Your task to perform on an android device: Go to Yahoo.com Image 0: 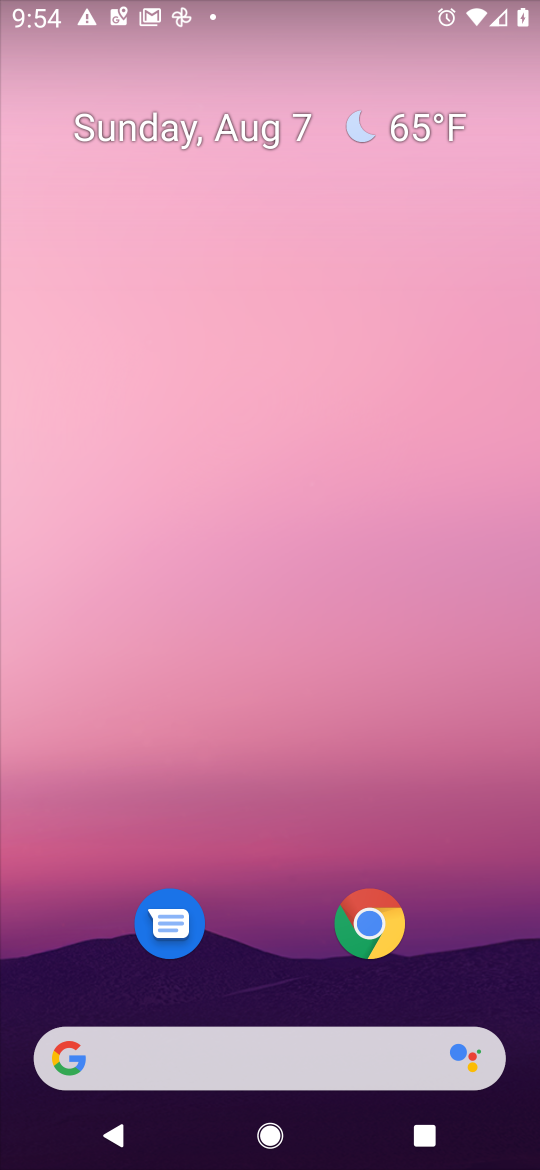
Step 0: drag from (521, 968) to (19, 15)
Your task to perform on an android device: Go to Yahoo.com Image 1: 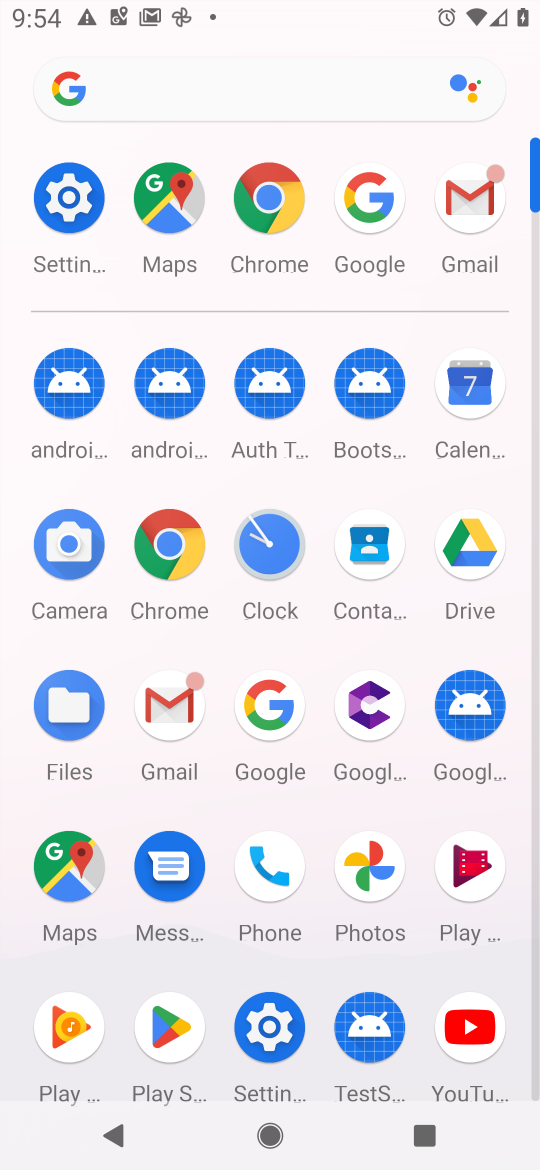
Step 1: click (276, 706)
Your task to perform on an android device: Go to Yahoo.com Image 2: 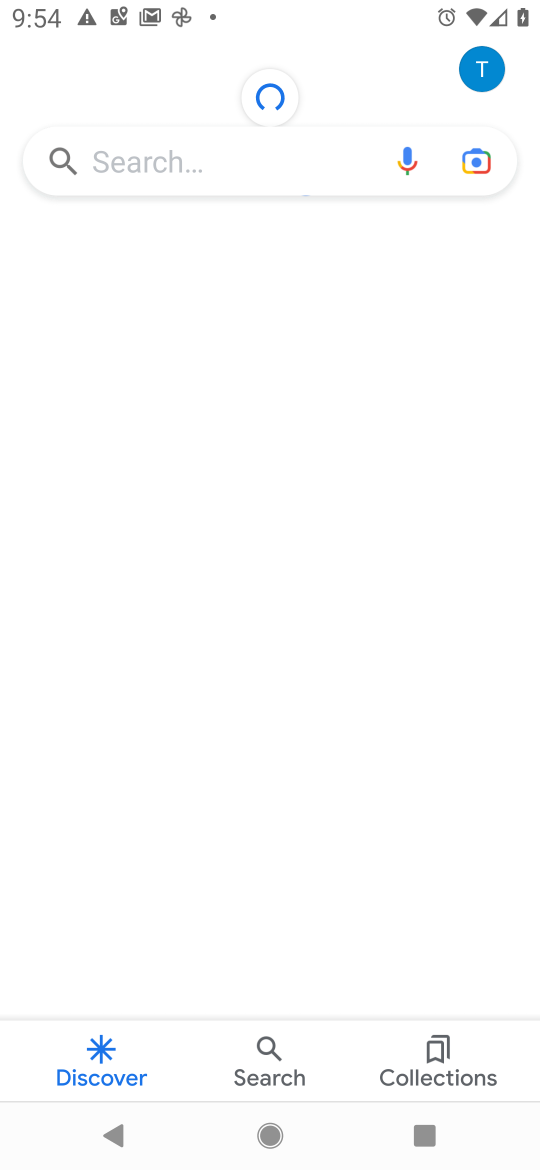
Step 2: click (120, 169)
Your task to perform on an android device: Go to Yahoo.com Image 3: 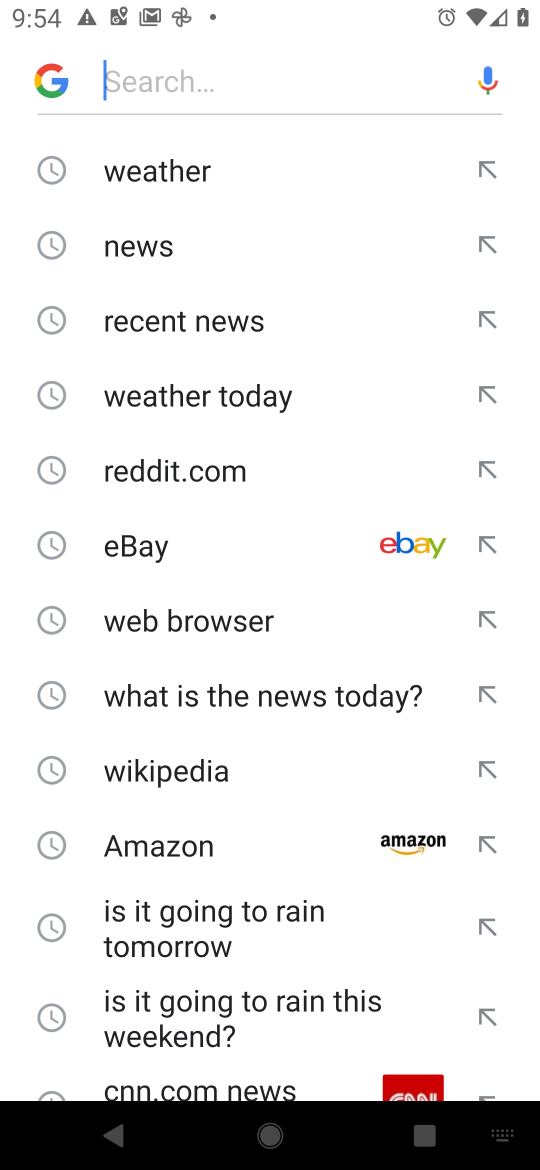
Step 3: type "Yahoo.com"
Your task to perform on an android device: Go to Yahoo.com Image 4: 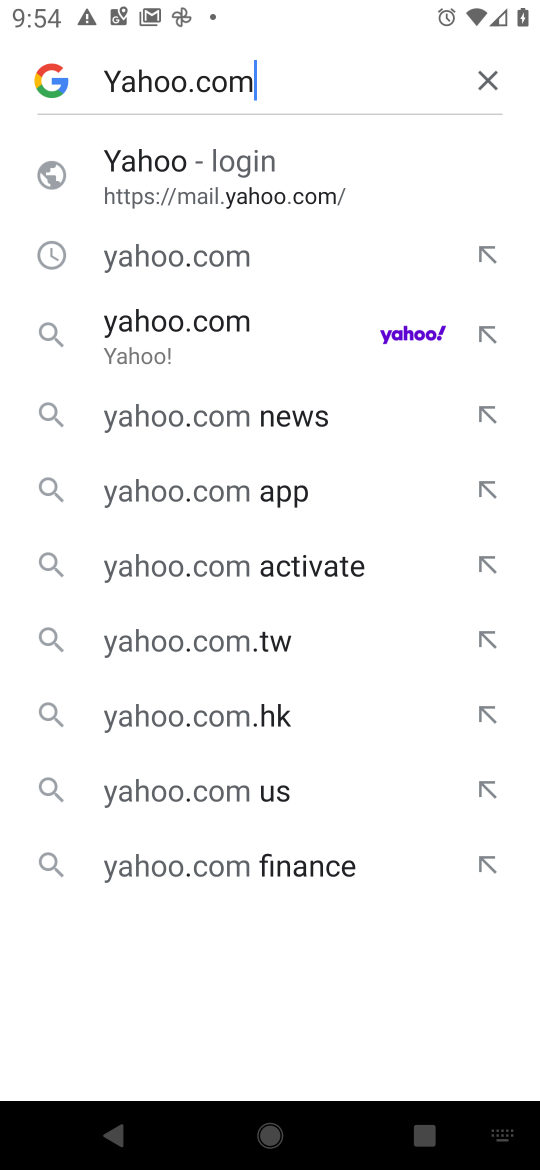
Step 4: click (180, 345)
Your task to perform on an android device: Go to Yahoo.com Image 5: 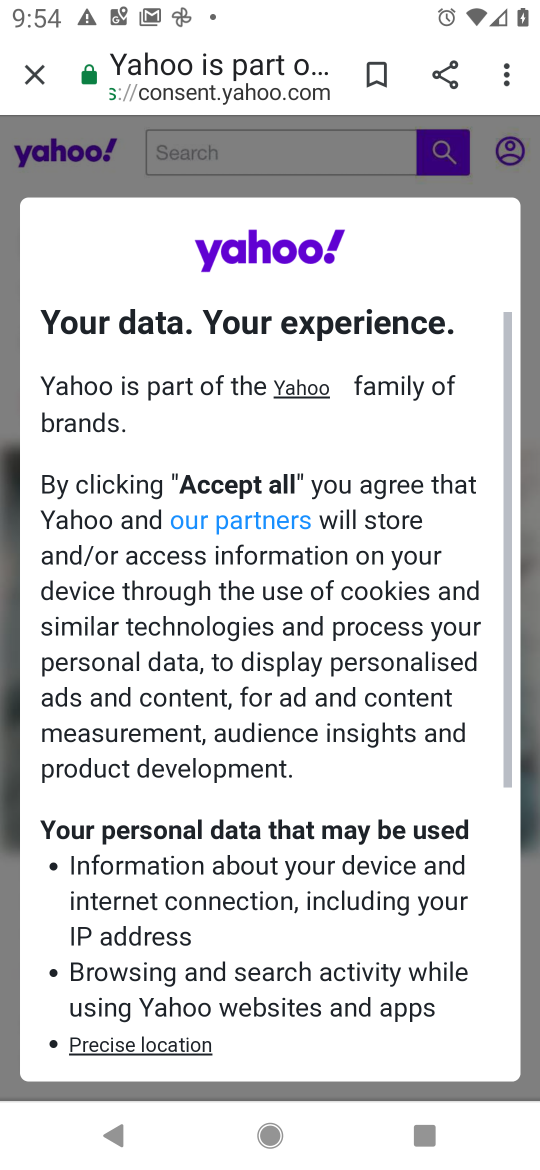
Step 5: task complete